Your task to perform on an android device: Go to ESPN.com Image 0: 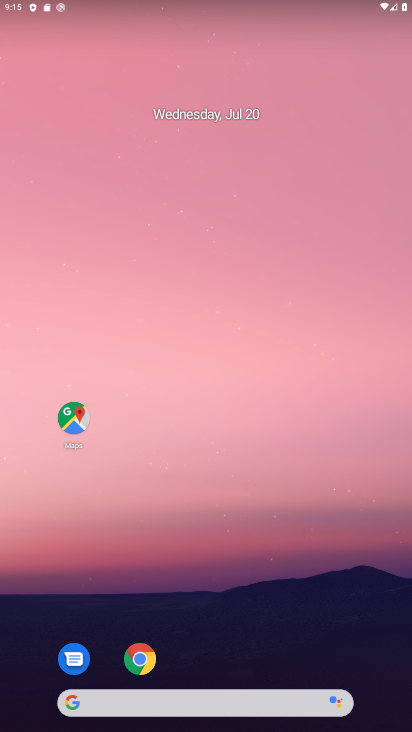
Step 0: drag from (321, 625) to (234, 84)
Your task to perform on an android device: Go to ESPN.com Image 1: 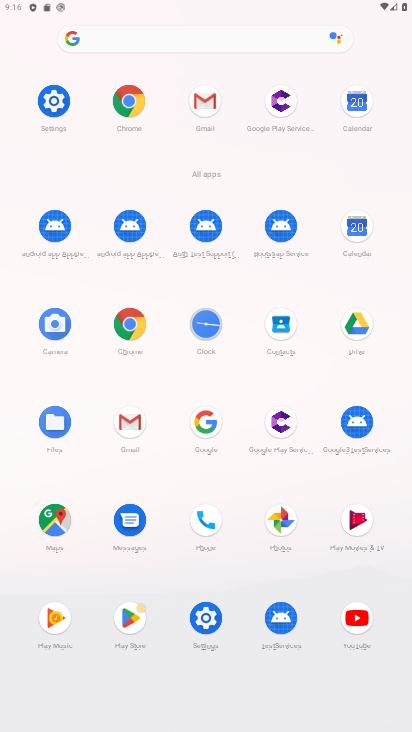
Step 1: click (124, 102)
Your task to perform on an android device: Go to ESPN.com Image 2: 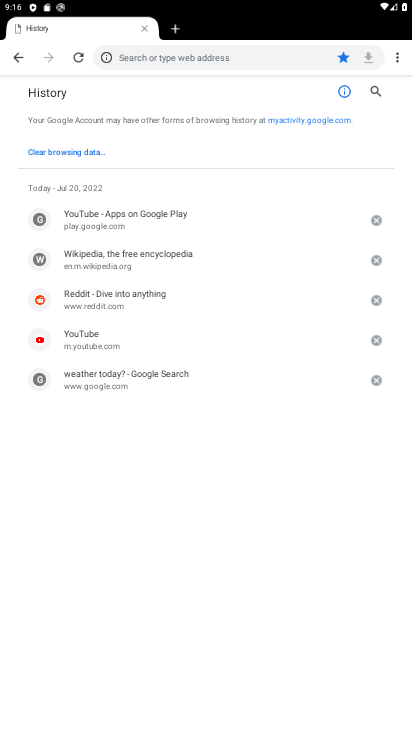
Step 2: click (183, 63)
Your task to perform on an android device: Go to ESPN.com Image 3: 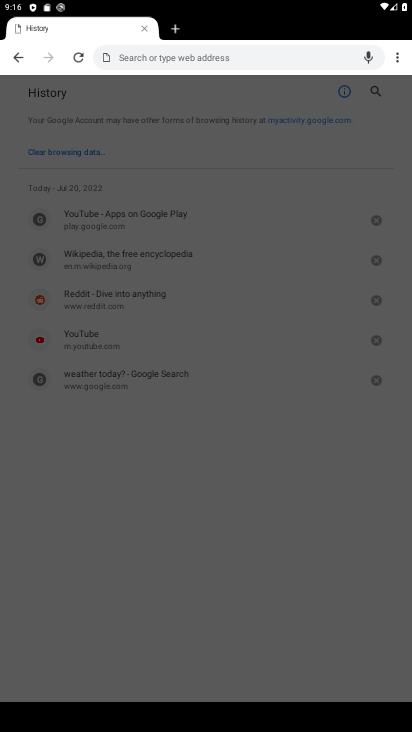
Step 3: type "espn.com"
Your task to perform on an android device: Go to ESPN.com Image 4: 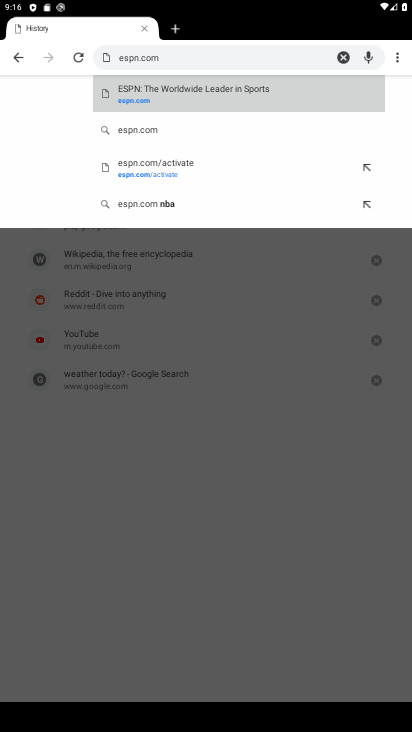
Step 4: click (129, 97)
Your task to perform on an android device: Go to ESPN.com Image 5: 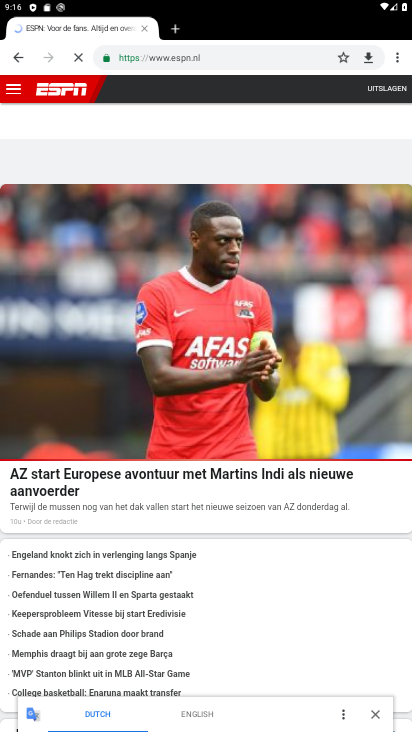
Step 5: task complete